Your task to perform on an android device: Open notification settings Image 0: 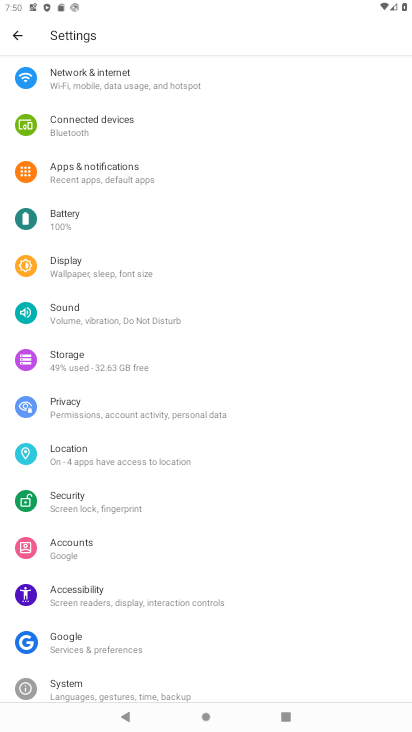
Step 0: click (78, 169)
Your task to perform on an android device: Open notification settings Image 1: 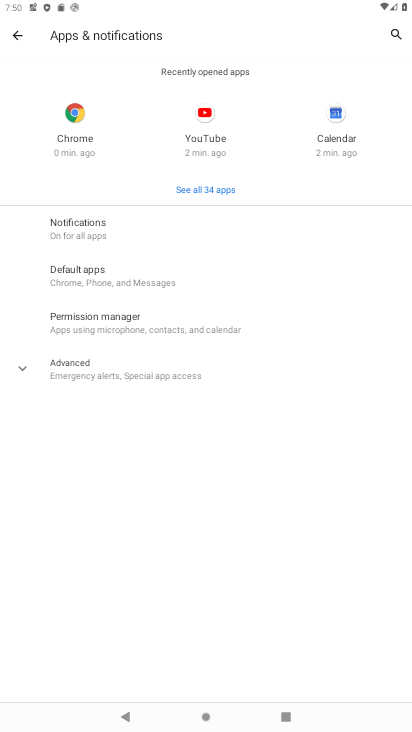
Step 1: click (81, 228)
Your task to perform on an android device: Open notification settings Image 2: 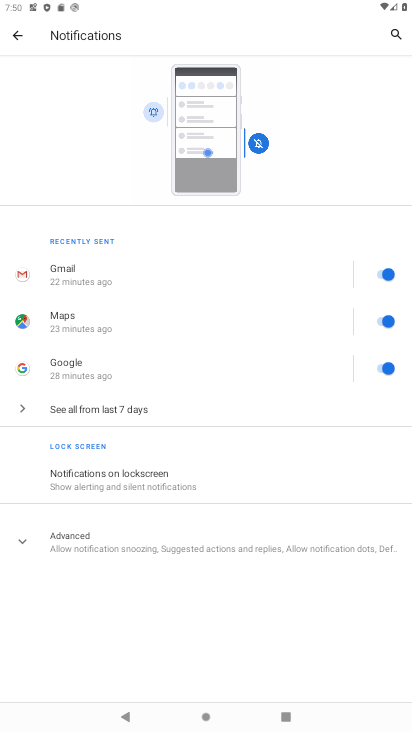
Step 2: click (29, 545)
Your task to perform on an android device: Open notification settings Image 3: 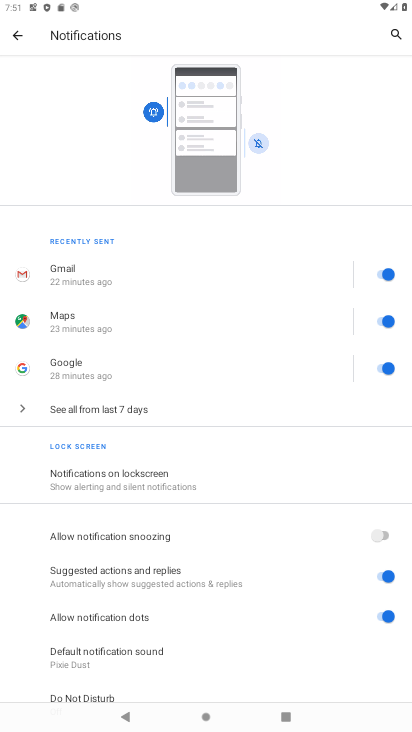
Step 3: task complete